Your task to perform on an android device: check android version Image 0: 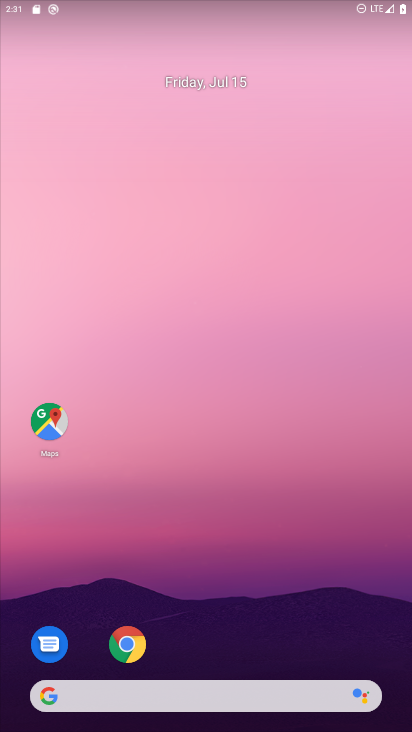
Step 0: drag from (17, 653) to (284, 95)
Your task to perform on an android device: check android version Image 1: 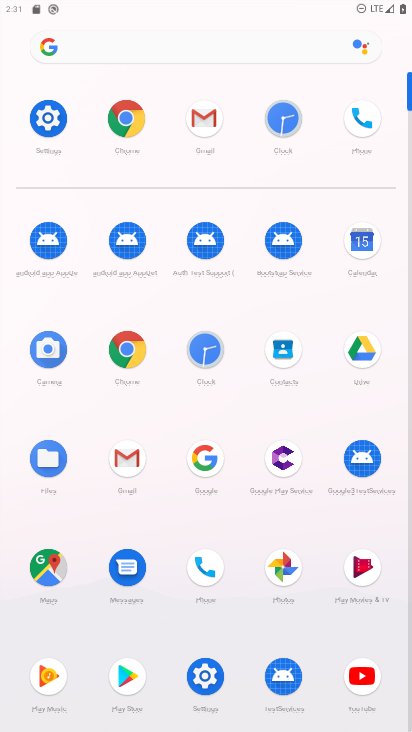
Step 1: click (67, 121)
Your task to perform on an android device: check android version Image 2: 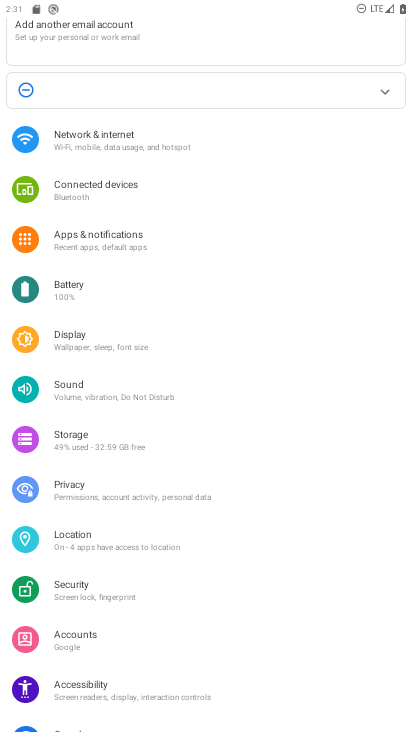
Step 2: drag from (124, 666) to (293, 177)
Your task to perform on an android device: check android version Image 3: 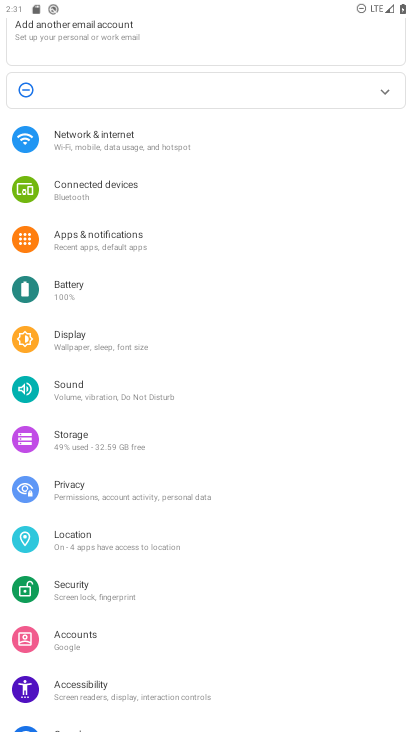
Step 3: drag from (33, 692) to (280, 129)
Your task to perform on an android device: check android version Image 4: 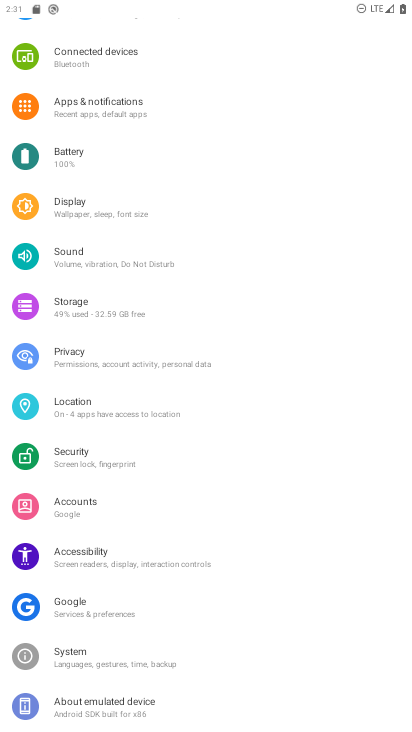
Step 4: drag from (17, 625) to (273, 185)
Your task to perform on an android device: check android version Image 5: 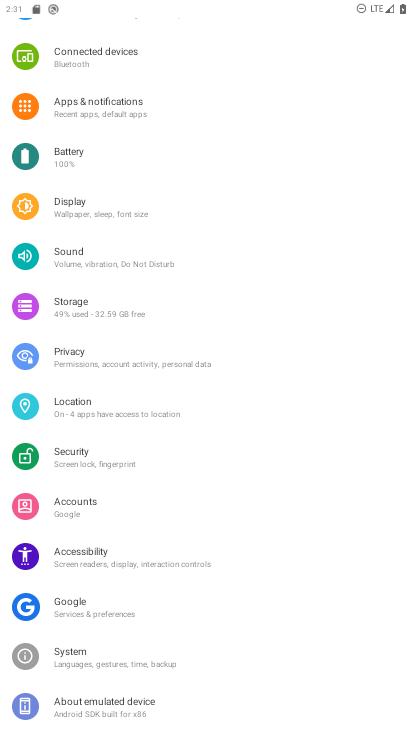
Step 5: click (78, 716)
Your task to perform on an android device: check android version Image 6: 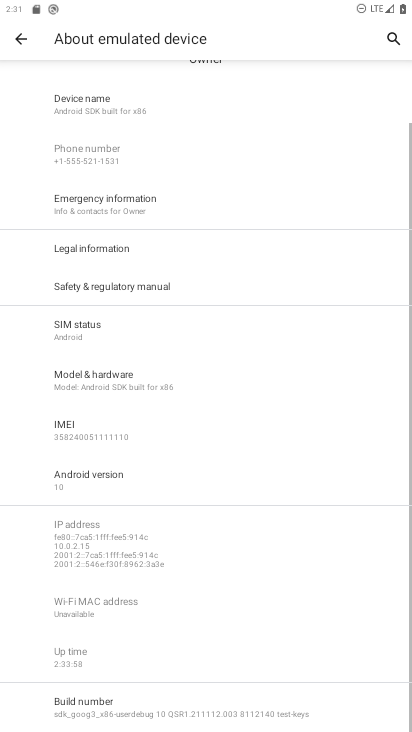
Step 6: click (95, 487)
Your task to perform on an android device: check android version Image 7: 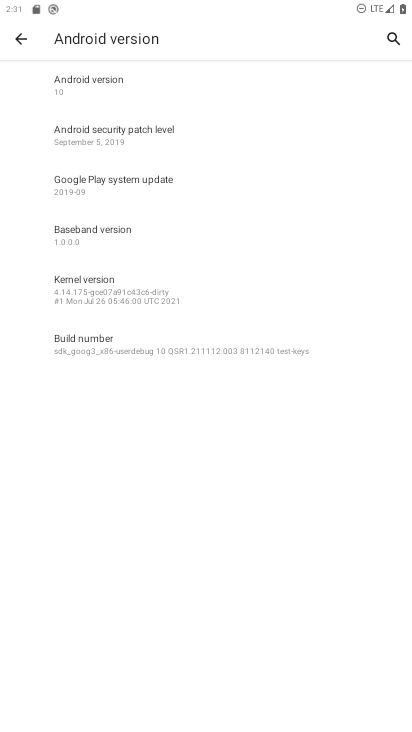
Step 7: task complete